Your task to perform on an android device: Go to eBay Image 0: 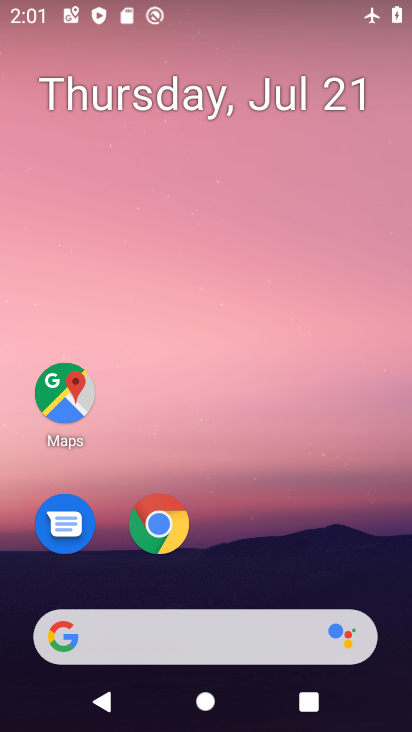
Step 0: click (257, 636)
Your task to perform on an android device: Go to eBay Image 1: 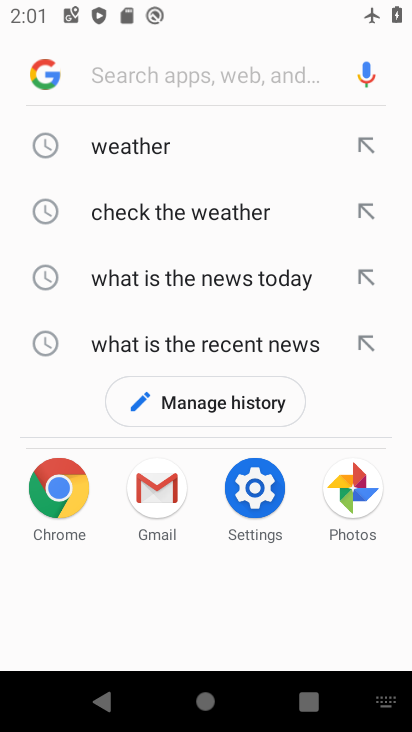
Step 1: type "ebay"
Your task to perform on an android device: Go to eBay Image 2: 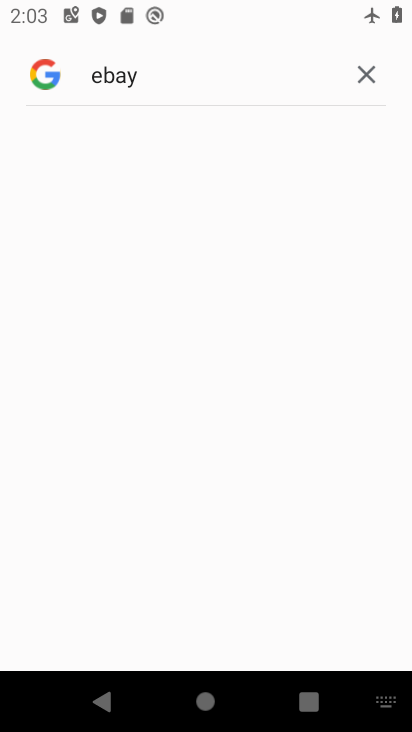
Step 2: task complete